Your task to perform on an android device: Do I have any events today? Image 0: 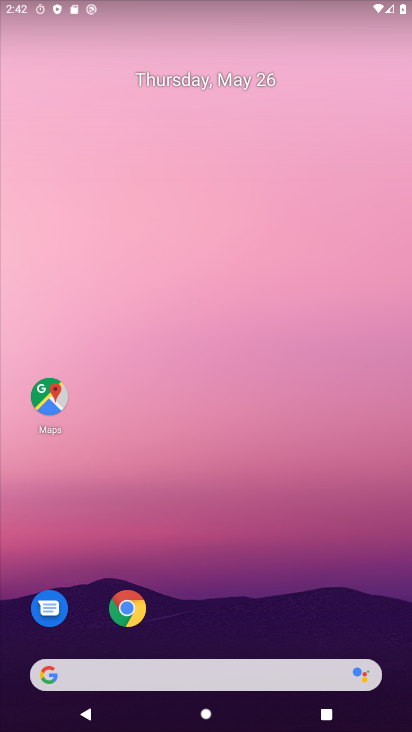
Step 0: drag from (289, 709) to (141, 301)
Your task to perform on an android device: Do I have any events today? Image 1: 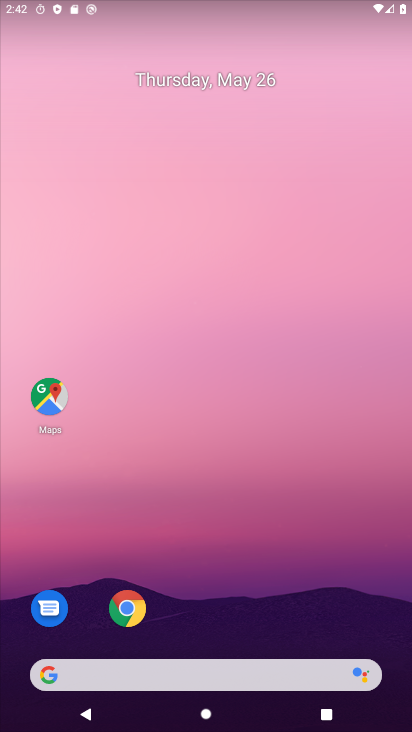
Step 1: drag from (282, 639) to (153, 117)
Your task to perform on an android device: Do I have any events today? Image 2: 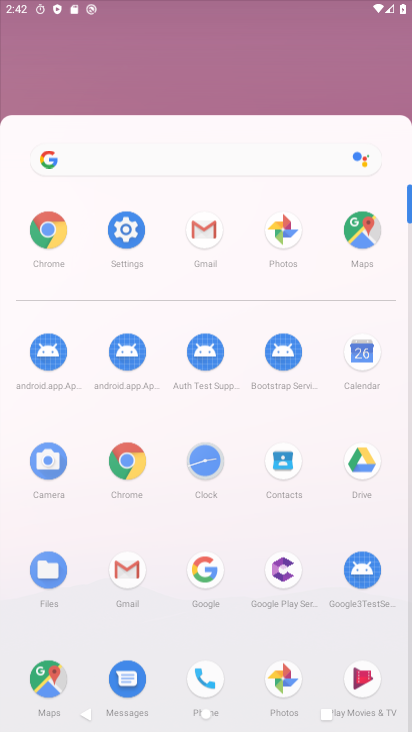
Step 2: drag from (203, 603) to (207, 196)
Your task to perform on an android device: Do I have any events today? Image 3: 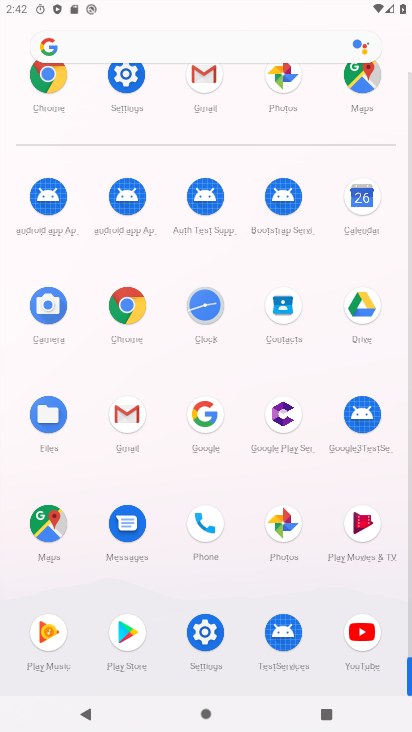
Step 3: click (363, 206)
Your task to perform on an android device: Do I have any events today? Image 4: 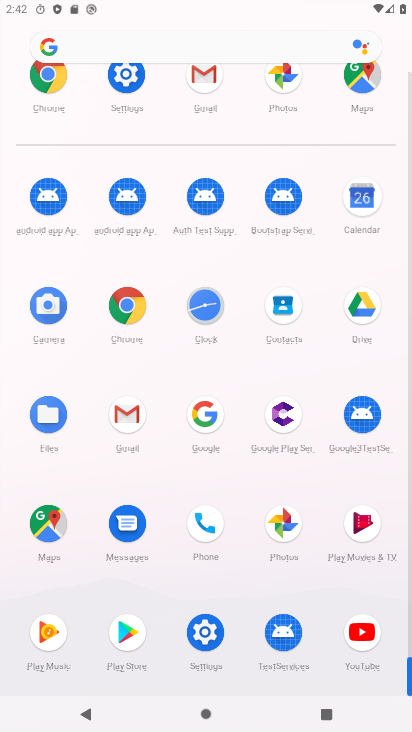
Step 4: click (364, 206)
Your task to perform on an android device: Do I have any events today? Image 5: 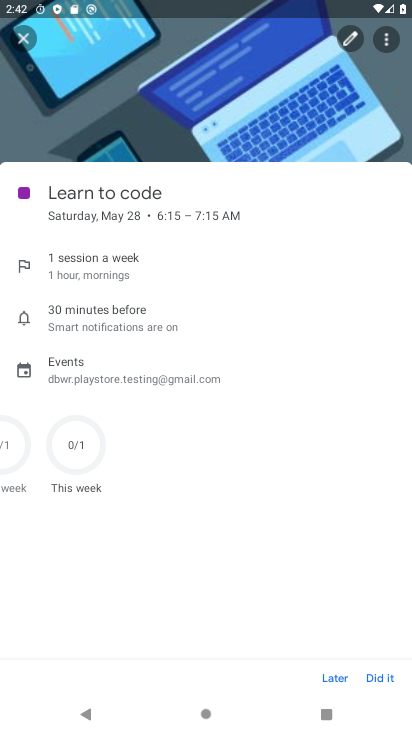
Step 5: click (21, 33)
Your task to perform on an android device: Do I have any events today? Image 6: 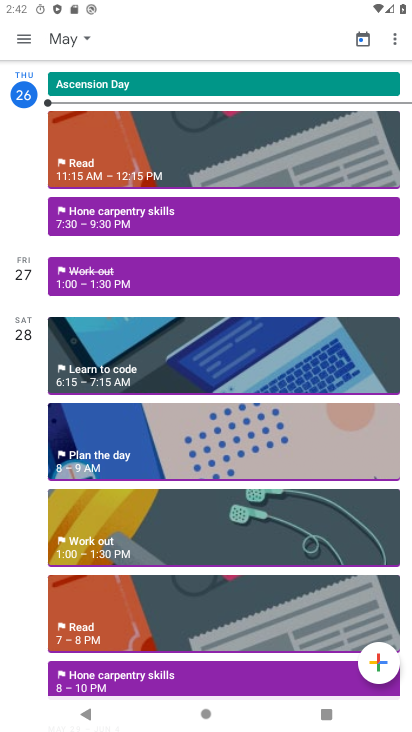
Step 6: click (101, 151)
Your task to perform on an android device: Do I have any events today? Image 7: 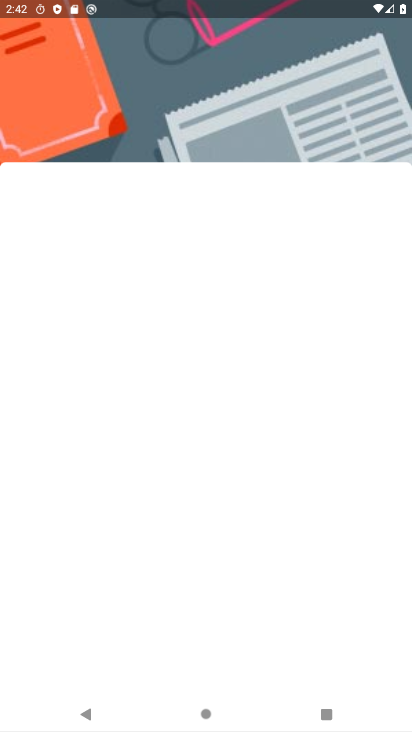
Step 7: task complete